Your task to perform on an android device: turn pop-ups off in chrome Image 0: 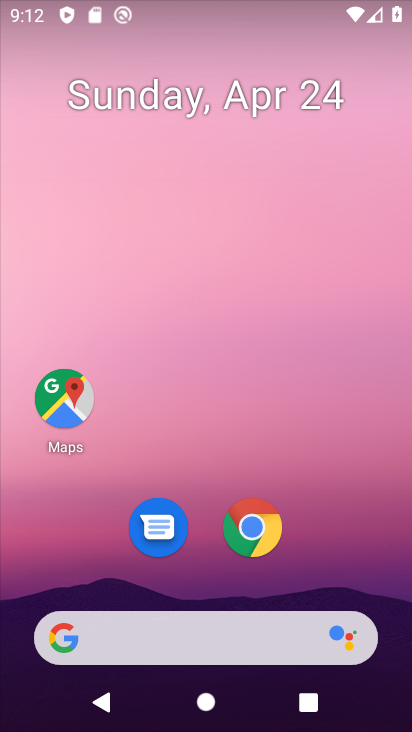
Step 0: click (248, 523)
Your task to perform on an android device: turn pop-ups off in chrome Image 1: 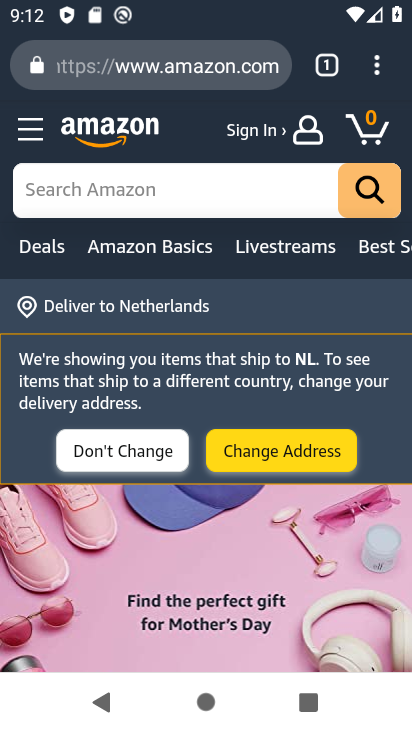
Step 1: drag from (376, 72) to (210, 572)
Your task to perform on an android device: turn pop-ups off in chrome Image 2: 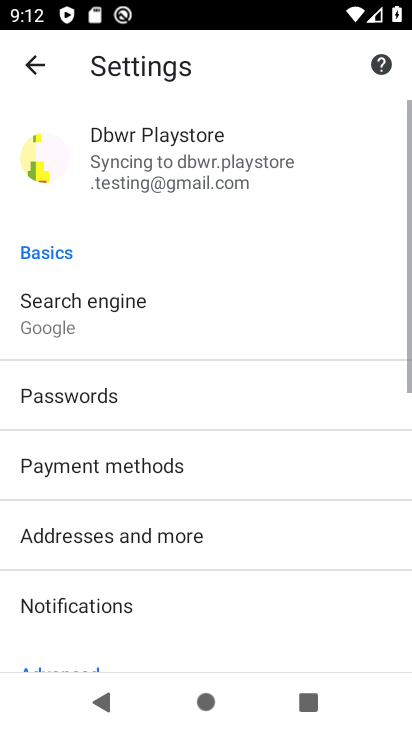
Step 2: drag from (200, 564) to (348, 133)
Your task to perform on an android device: turn pop-ups off in chrome Image 3: 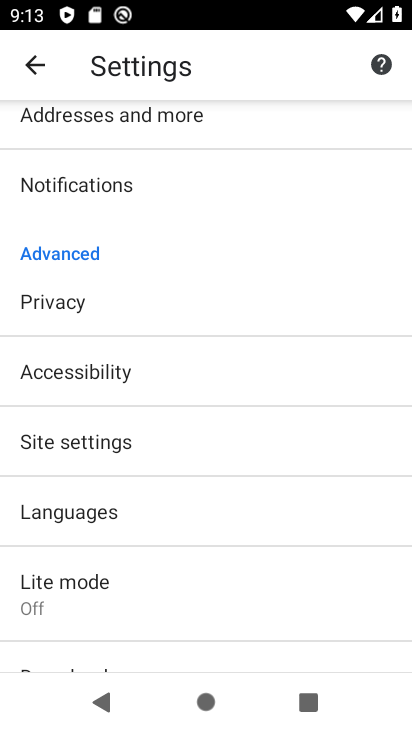
Step 3: click (72, 436)
Your task to perform on an android device: turn pop-ups off in chrome Image 4: 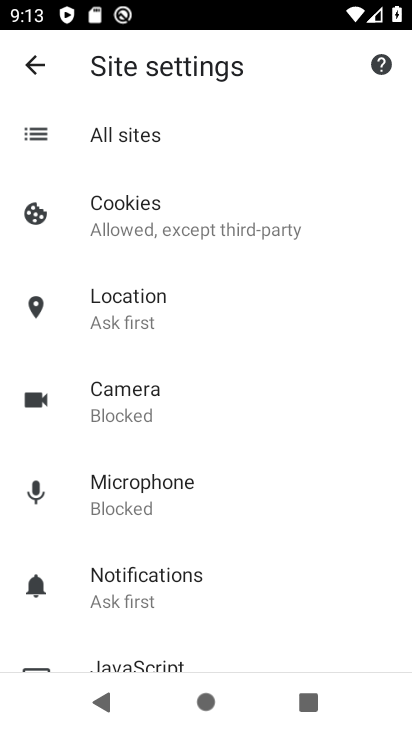
Step 4: drag from (192, 643) to (311, 178)
Your task to perform on an android device: turn pop-ups off in chrome Image 5: 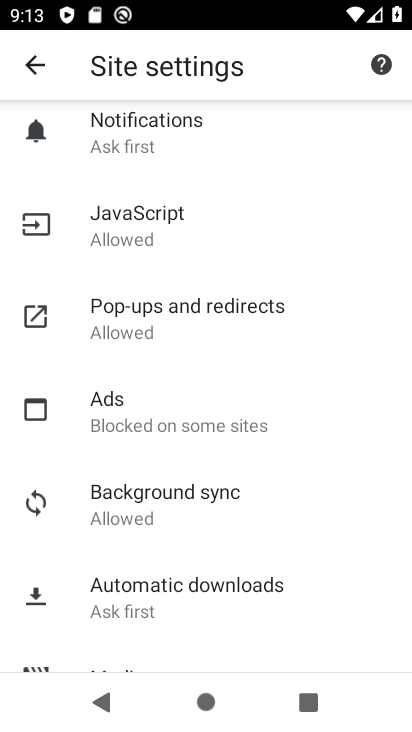
Step 5: click (209, 318)
Your task to perform on an android device: turn pop-ups off in chrome Image 6: 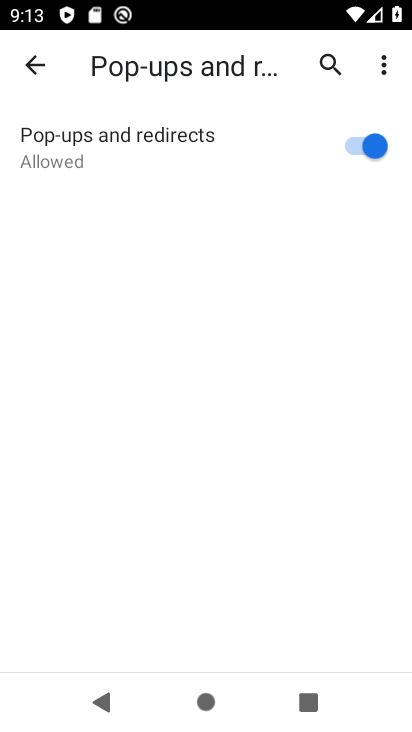
Step 6: click (366, 144)
Your task to perform on an android device: turn pop-ups off in chrome Image 7: 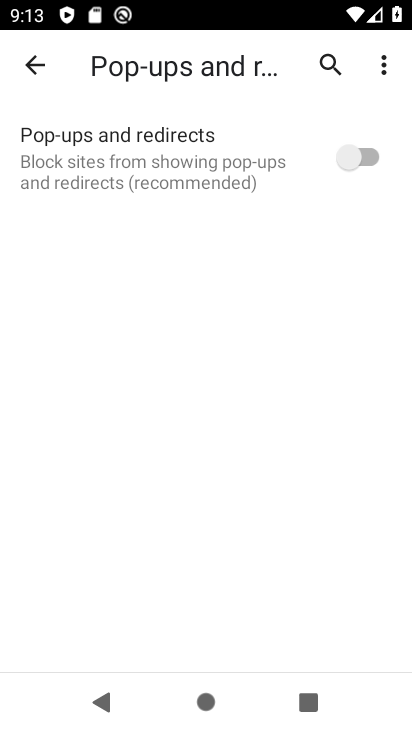
Step 7: task complete